Your task to perform on an android device: delete location history Image 0: 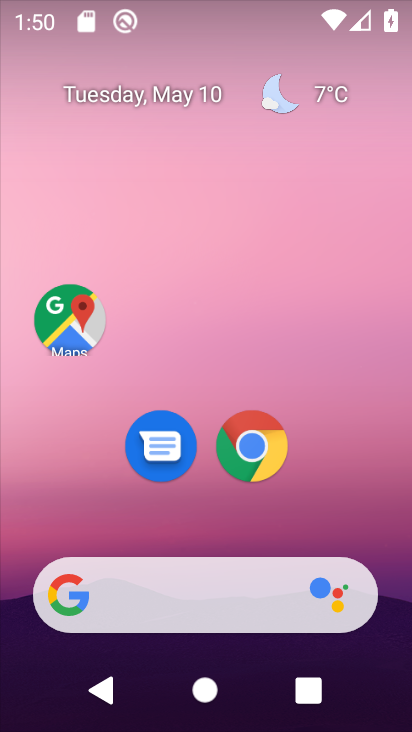
Step 0: drag from (312, 546) to (353, 133)
Your task to perform on an android device: delete location history Image 1: 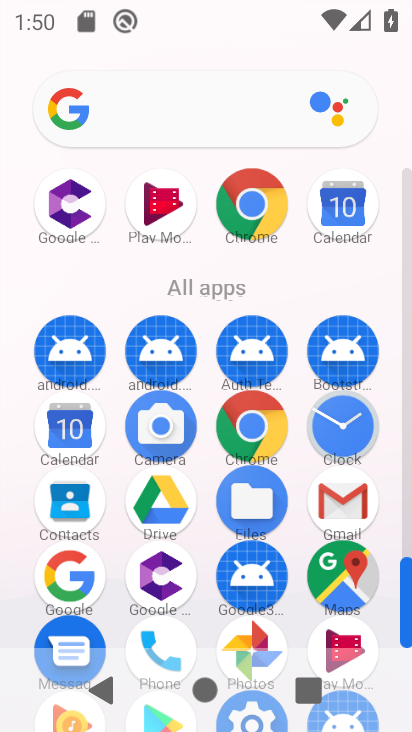
Step 1: drag from (299, 604) to (348, 255)
Your task to perform on an android device: delete location history Image 2: 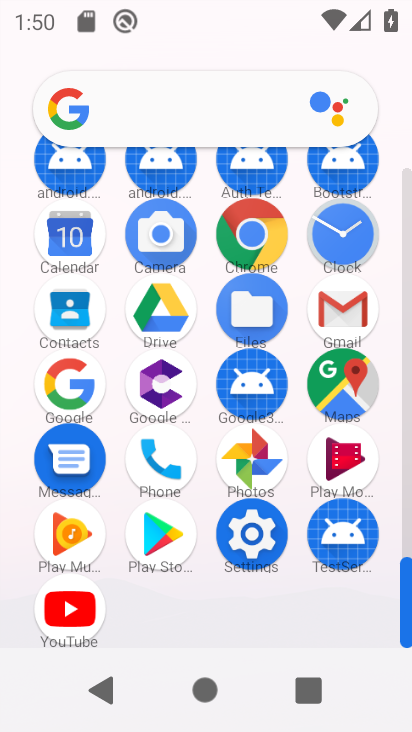
Step 2: click (348, 372)
Your task to perform on an android device: delete location history Image 3: 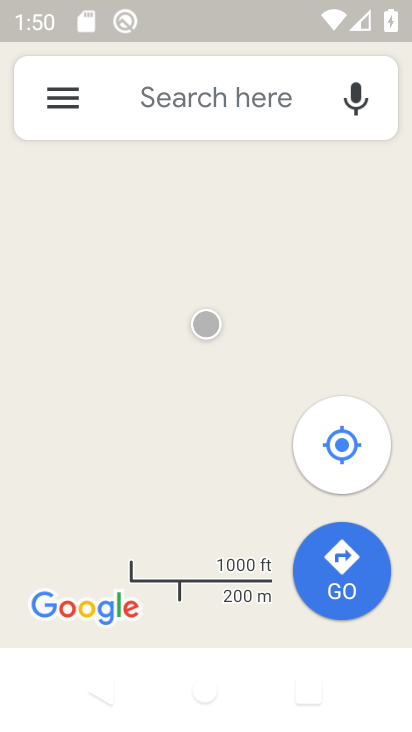
Step 3: click (52, 110)
Your task to perform on an android device: delete location history Image 4: 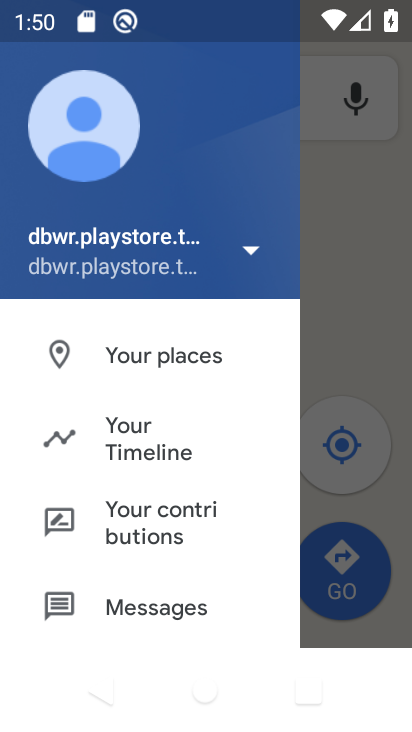
Step 4: click (174, 459)
Your task to perform on an android device: delete location history Image 5: 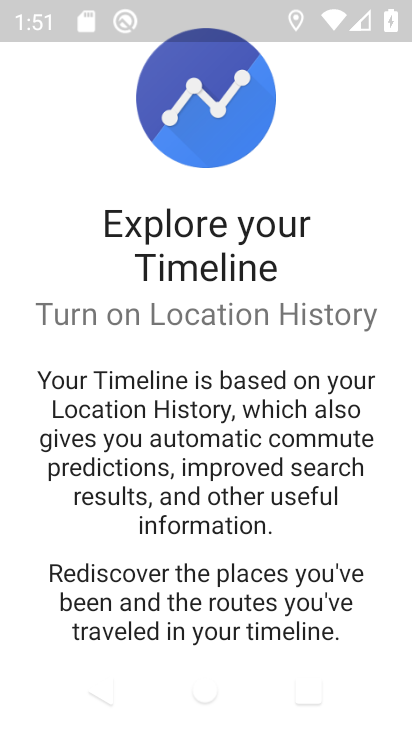
Step 5: drag from (201, 547) to (245, 194)
Your task to perform on an android device: delete location history Image 6: 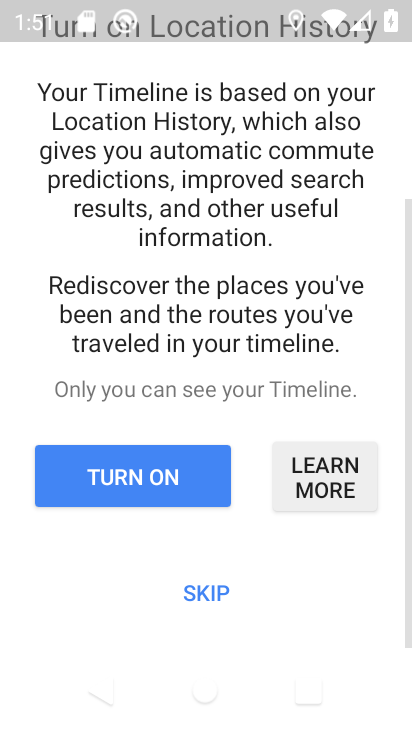
Step 6: click (207, 597)
Your task to perform on an android device: delete location history Image 7: 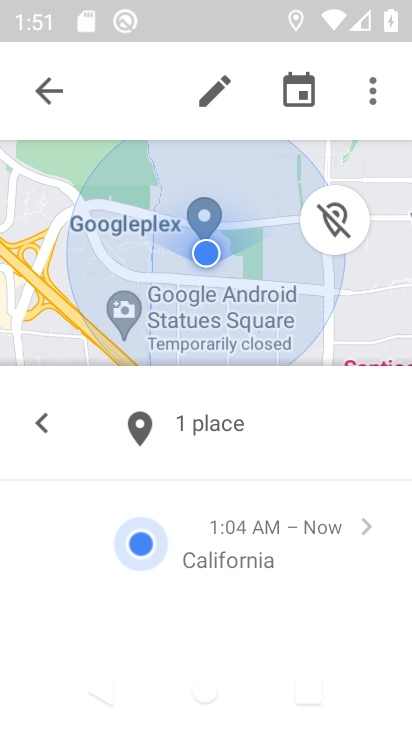
Step 7: click (381, 98)
Your task to perform on an android device: delete location history Image 8: 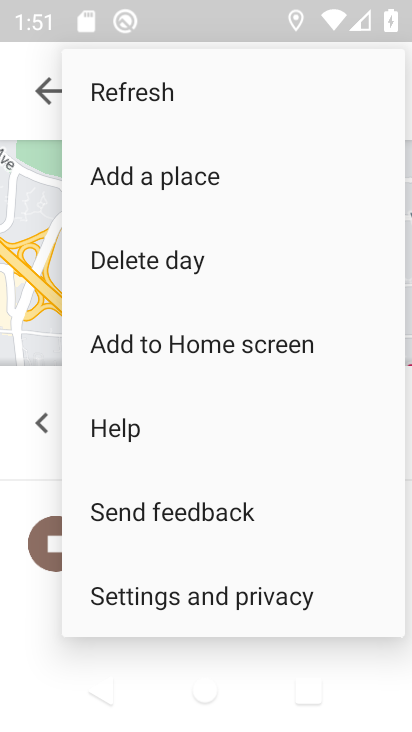
Step 8: drag from (216, 516) to (249, 257)
Your task to perform on an android device: delete location history Image 9: 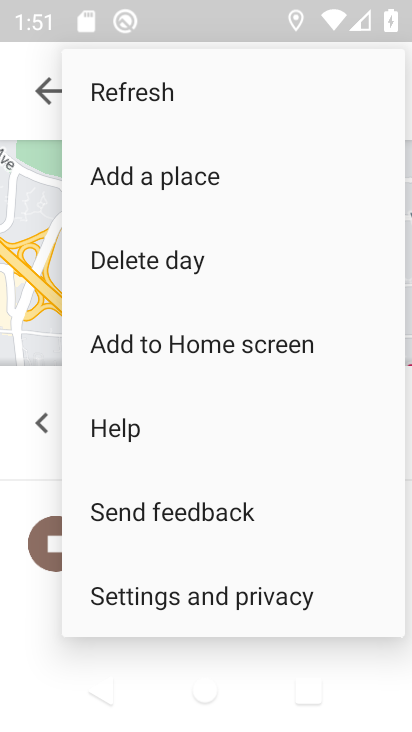
Step 9: click (178, 595)
Your task to perform on an android device: delete location history Image 10: 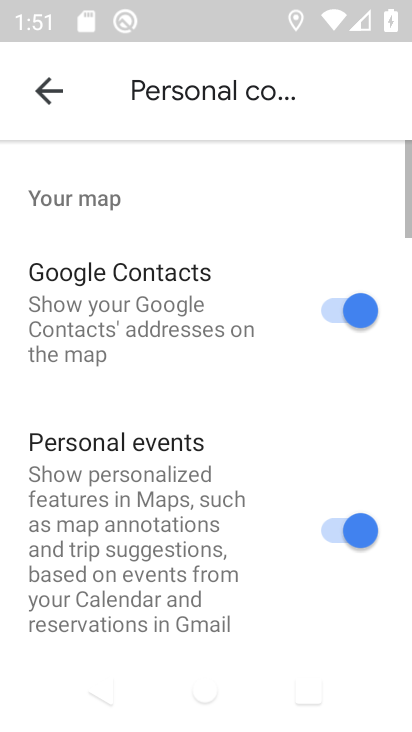
Step 10: drag from (152, 504) to (215, 122)
Your task to perform on an android device: delete location history Image 11: 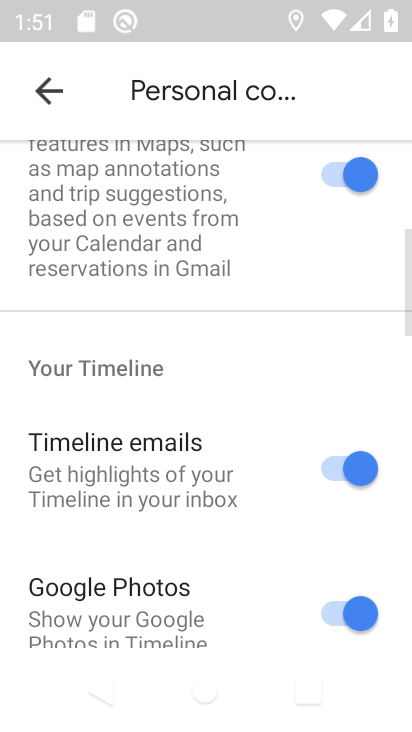
Step 11: drag from (179, 617) to (204, 316)
Your task to perform on an android device: delete location history Image 12: 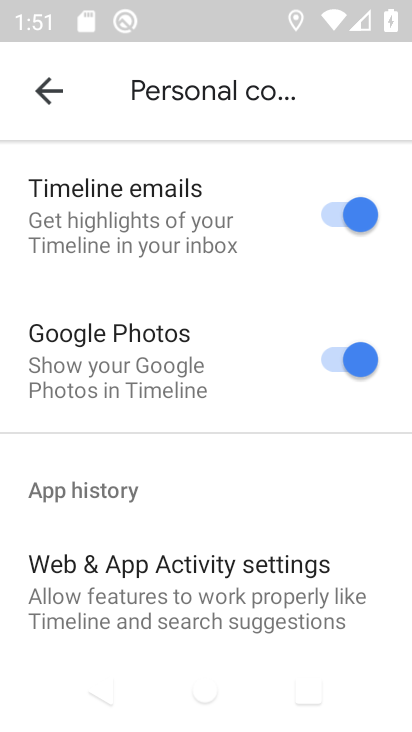
Step 12: drag from (213, 551) to (232, 189)
Your task to perform on an android device: delete location history Image 13: 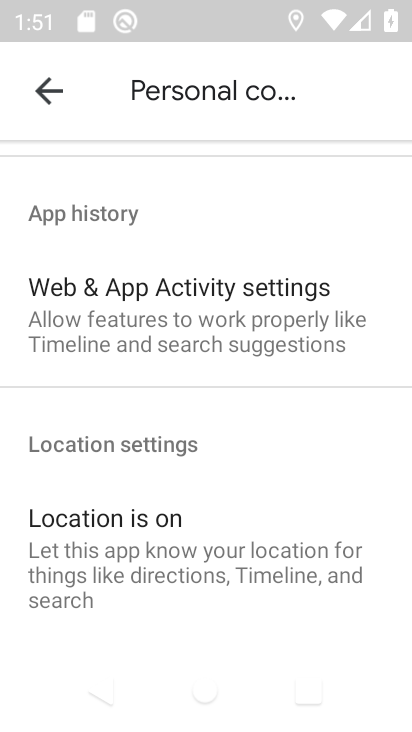
Step 13: drag from (137, 592) to (171, 373)
Your task to perform on an android device: delete location history Image 14: 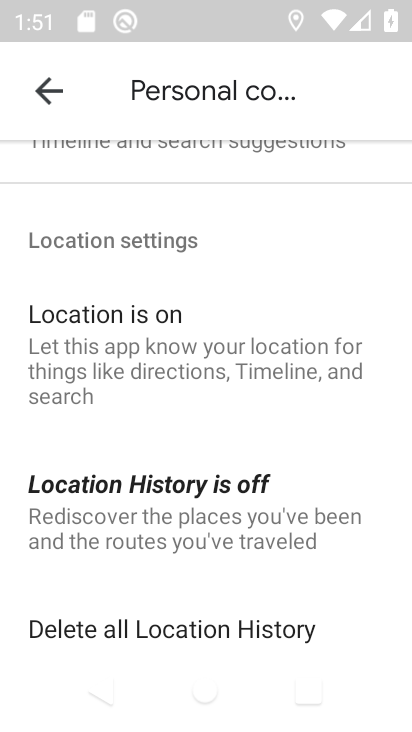
Step 14: click (196, 633)
Your task to perform on an android device: delete location history Image 15: 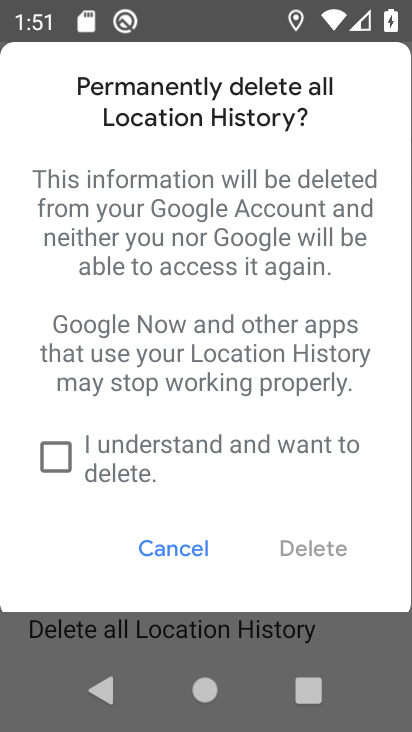
Step 15: click (61, 446)
Your task to perform on an android device: delete location history Image 16: 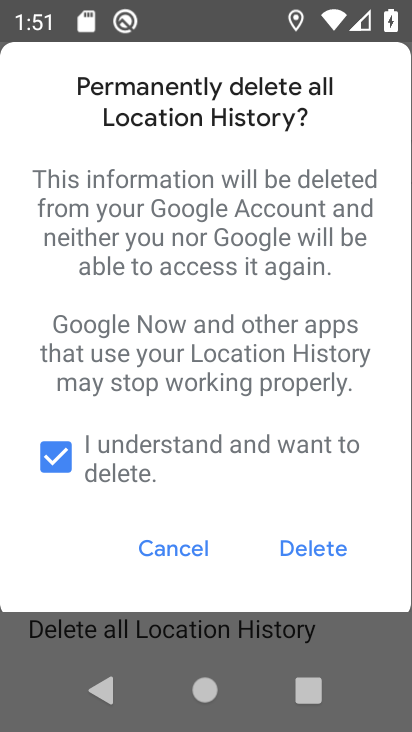
Step 16: click (328, 564)
Your task to perform on an android device: delete location history Image 17: 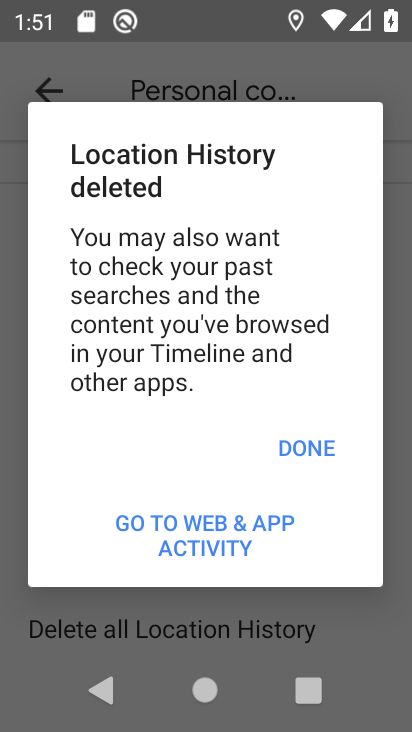
Step 17: click (310, 457)
Your task to perform on an android device: delete location history Image 18: 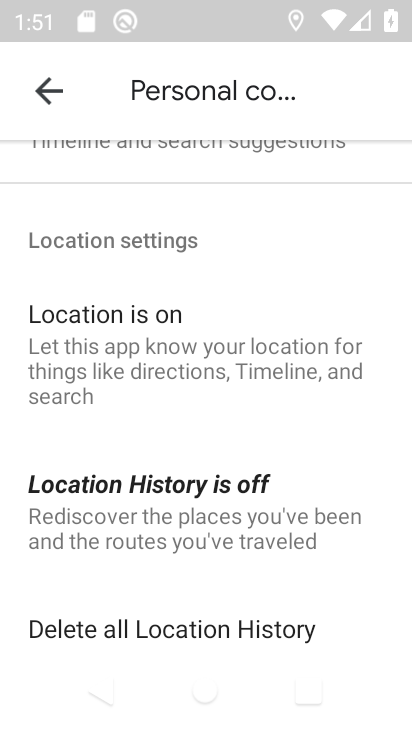
Step 18: task complete